Your task to perform on an android device: Find coffee shops on Maps Image 0: 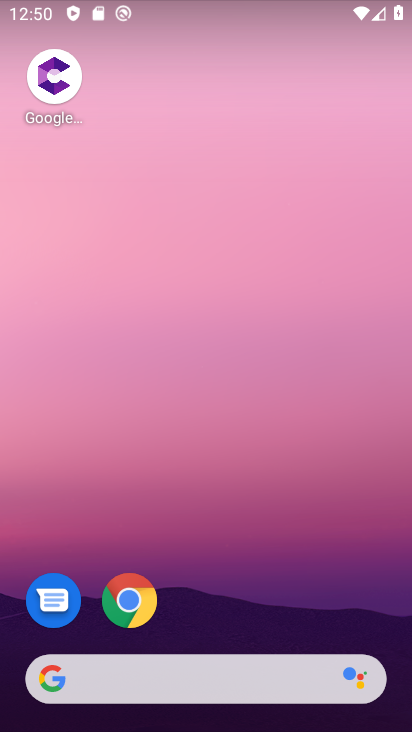
Step 0: drag from (175, 540) to (221, 228)
Your task to perform on an android device: Find coffee shops on Maps Image 1: 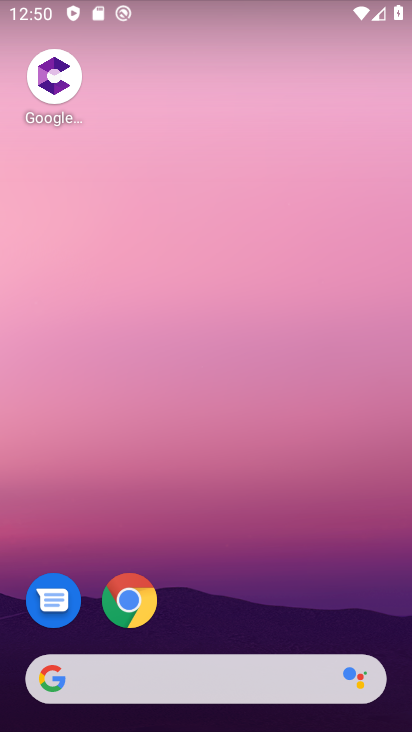
Step 1: drag from (277, 611) to (315, 42)
Your task to perform on an android device: Find coffee shops on Maps Image 2: 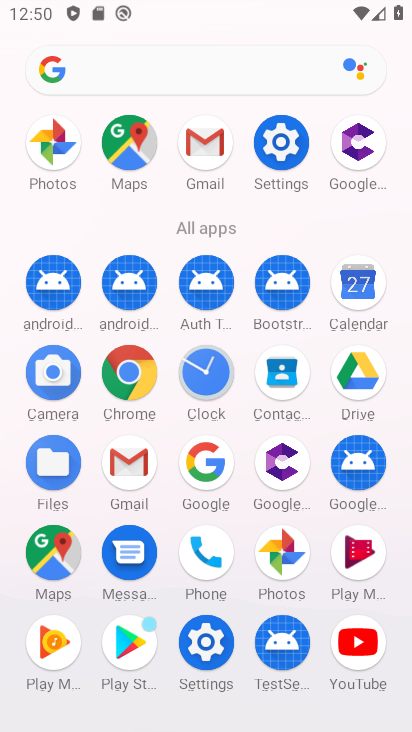
Step 2: click (62, 559)
Your task to perform on an android device: Find coffee shops on Maps Image 3: 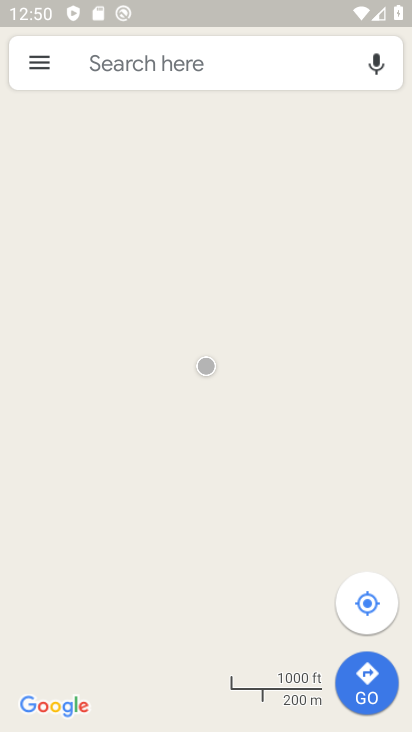
Step 3: click (256, 53)
Your task to perform on an android device: Find coffee shops on Maps Image 4: 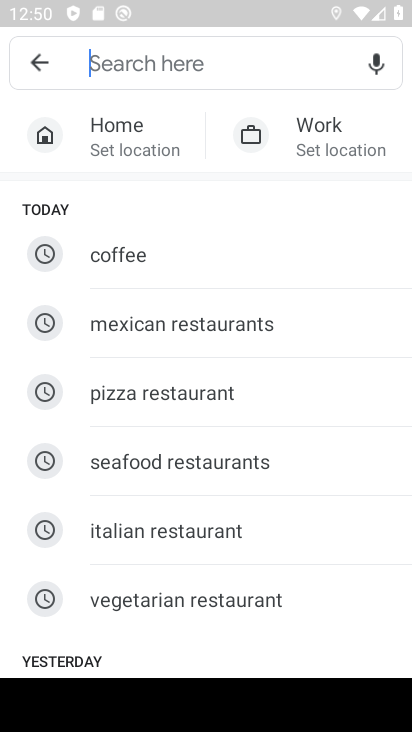
Step 4: type "coffee shop"
Your task to perform on an android device: Find coffee shops on Maps Image 5: 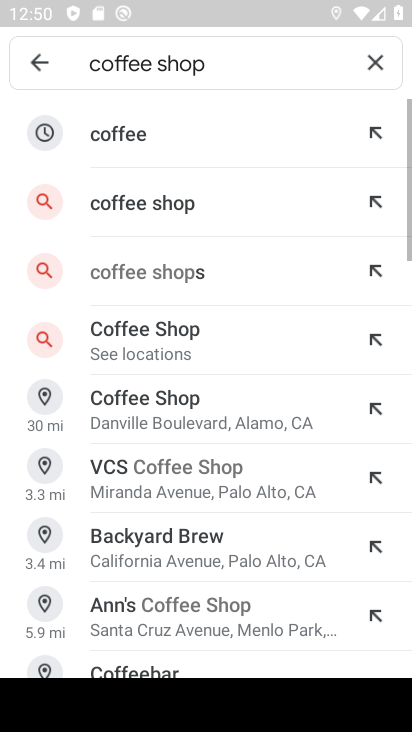
Step 5: click (268, 209)
Your task to perform on an android device: Find coffee shops on Maps Image 6: 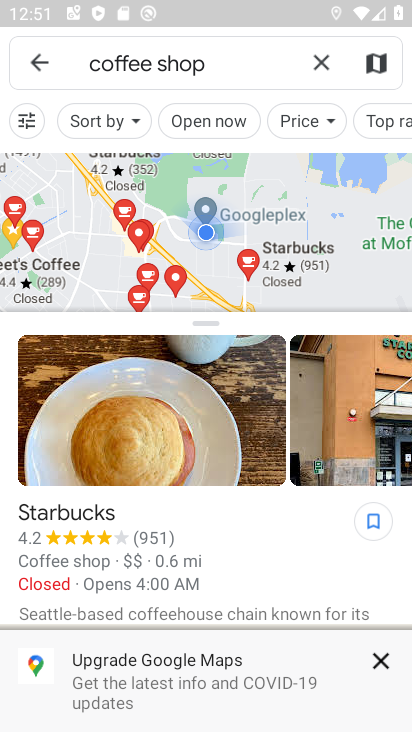
Step 6: task complete